Your task to perform on an android device: Open sound settings Image 0: 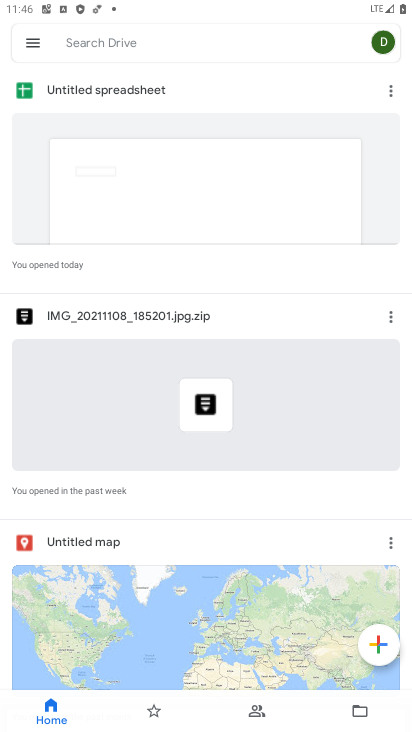
Step 0: press home button
Your task to perform on an android device: Open sound settings Image 1: 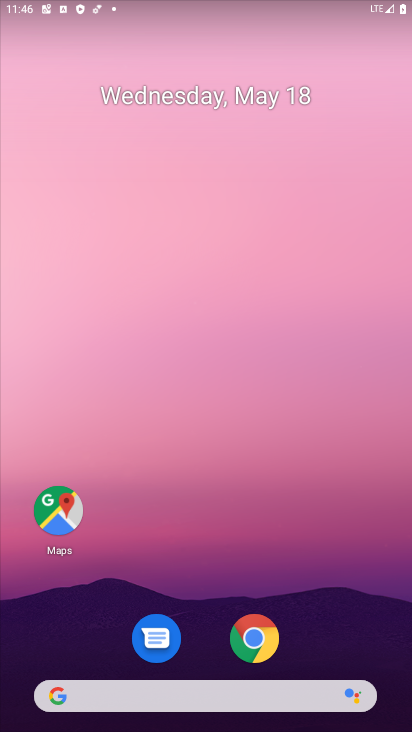
Step 1: drag from (360, 634) to (350, 262)
Your task to perform on an android device: Open sound settings Image 2: 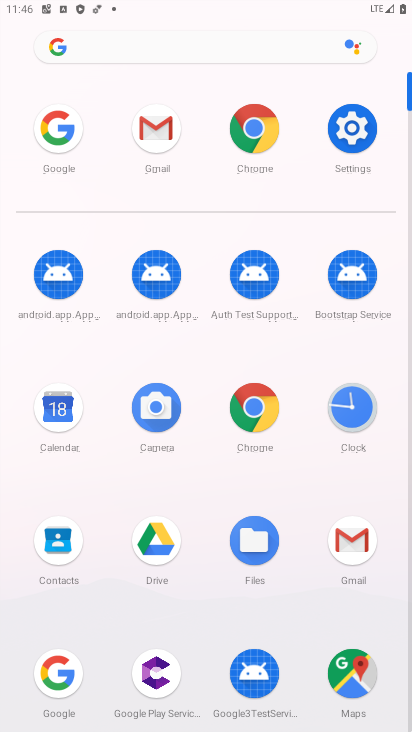
Step 2: click (343, 132)
Your task to perform on an android device: Open sound settings Image 3: 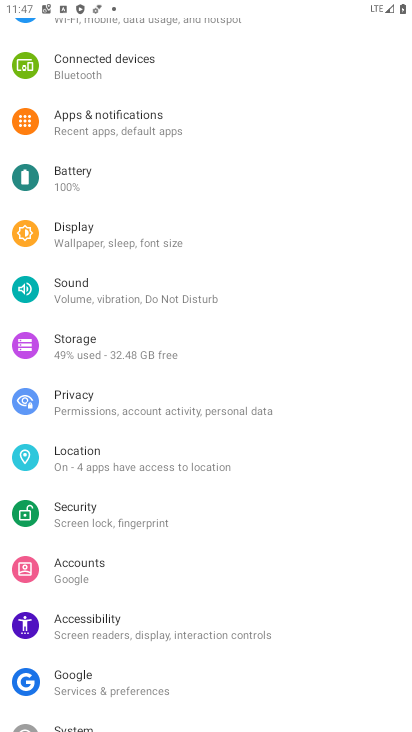
Step 3: click (136, 289)
Your task to perform on an android device: Open sound settings Image 4: 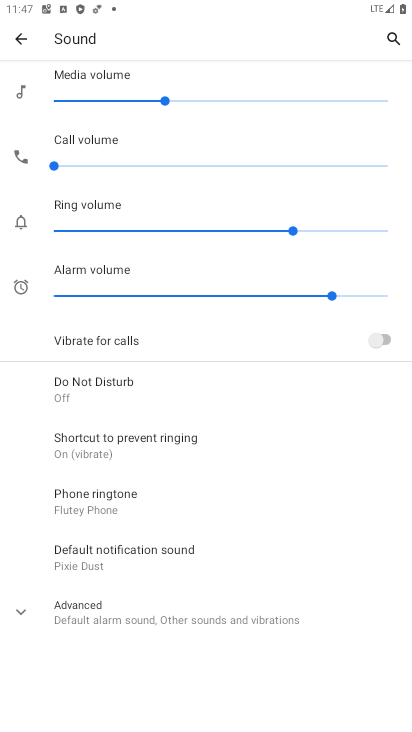
Step 4: task complete